Your task to perform on an android device: find which apps use the phone's location Image 0: 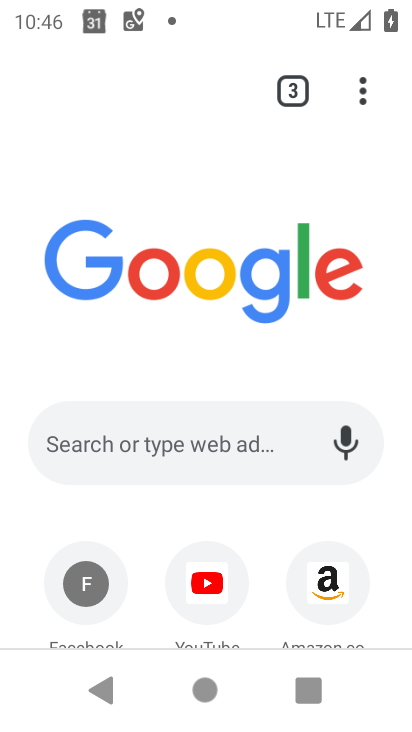
Step 0: press home button
Your task to perform on an android device: find which apps use the phone's location Image 1: 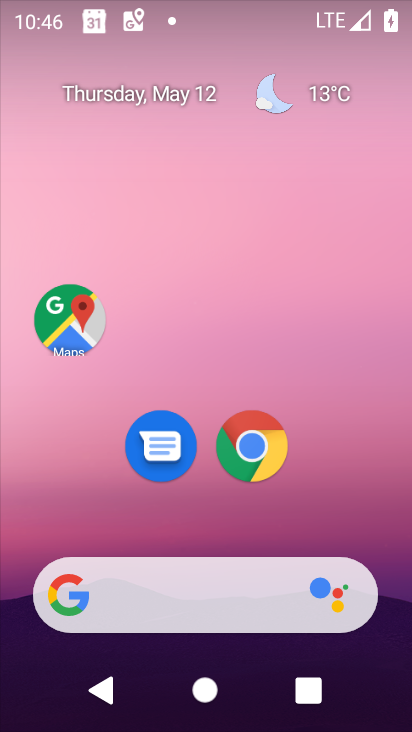
Step 1: drag from (235, 550) to (293, 76)
Your task to perform on an android device: find which apps use the phone's location Image 2: 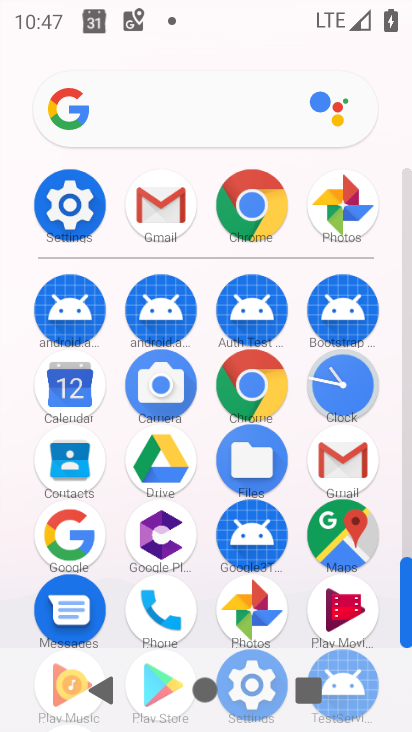
Step 2: click (47, 209)
Your task to perform on an android device: find which apps use the phone's location Image 3: 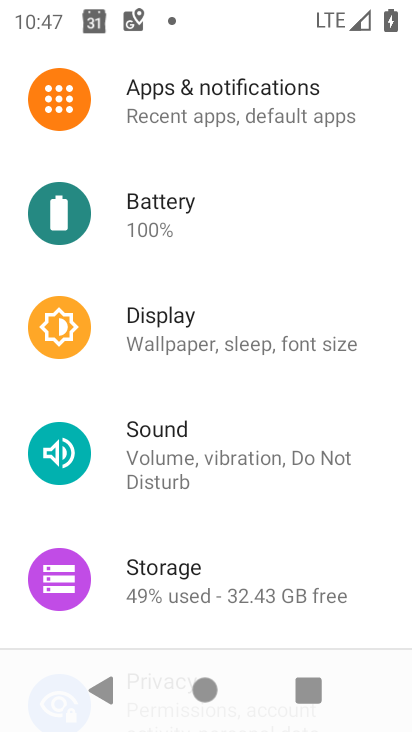
Step 3: drag from (192, 594) to (198, 117)
Your task to perform on an android device: find which apps use the phone's location Image 4: 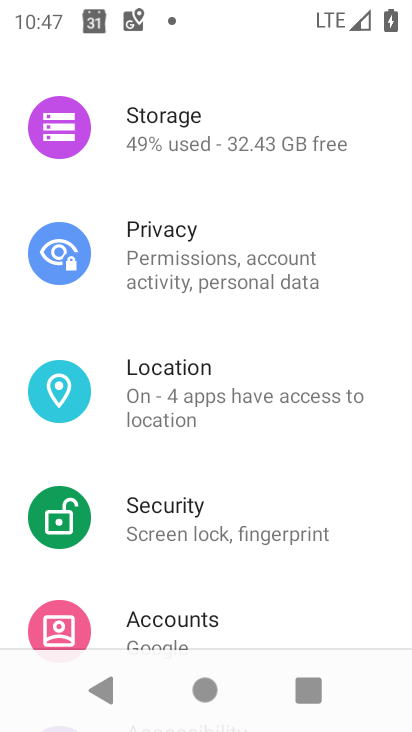
Step 4: click (181, 401)
Your task to perform on an android device: find which apps use the phone's location Image 5: 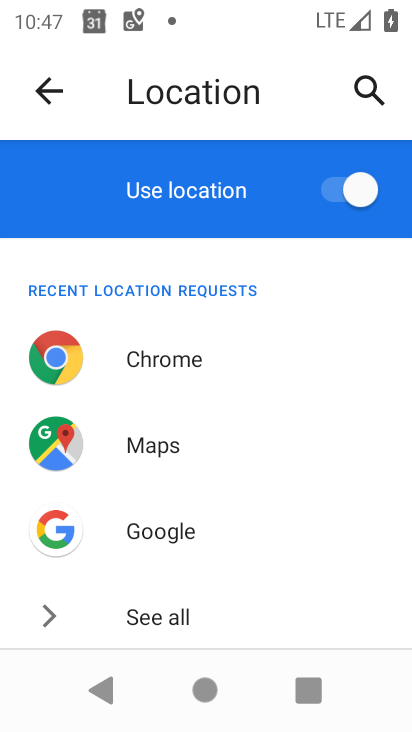
Step 5: drag from (234, 600) to (261, 317)
Your task to perform on an android device: find which apps use the phone's location Image 6: 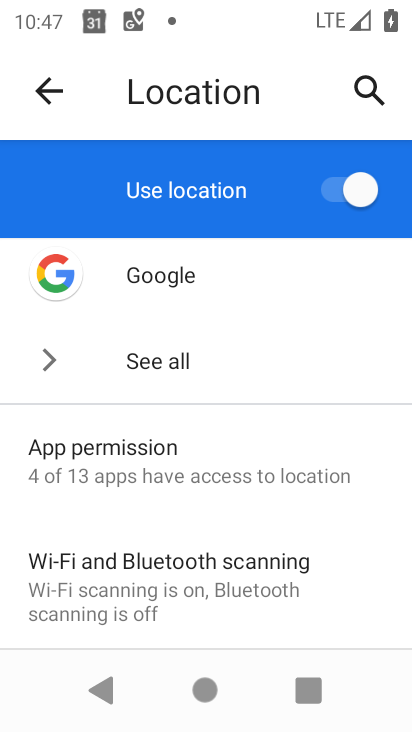
Step 6: click (195, 466)
Your task to perform on an android device: find which apps use the phone's location Image 7: 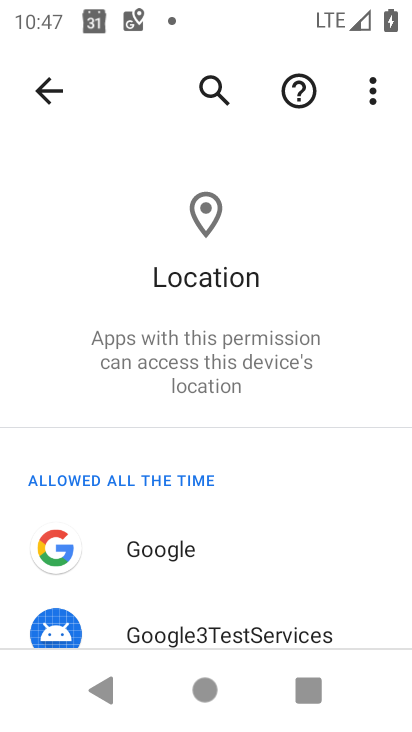
Step 7: task complete